Your task to perform on an android device: check data usage Image 0: 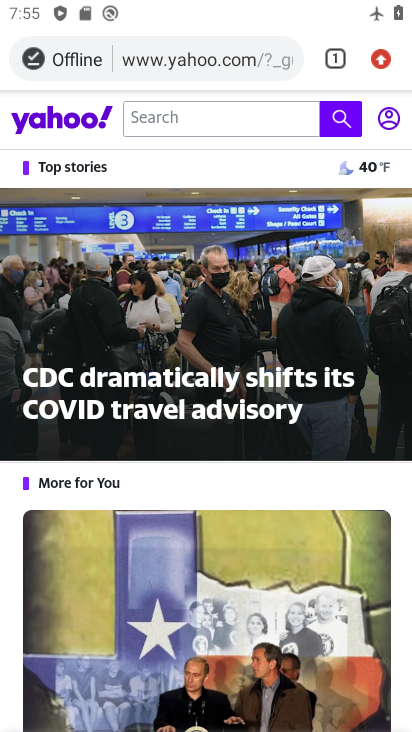
Step 0: press home button
Your task to perform on an android device: check data usage Image 1: 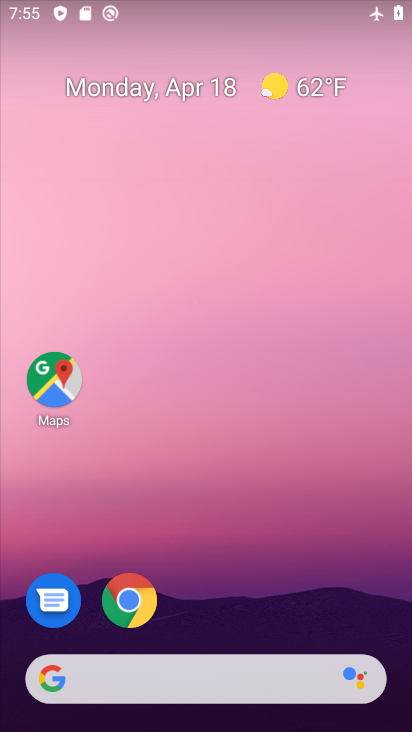
Step 1: drag from (232, 637) to (142, 0)
Your task to perform on an android device: check data usage Image 2: 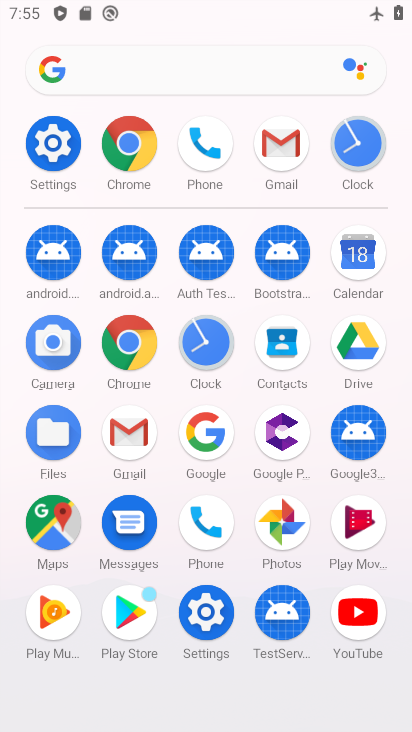
Step 2: click (32, 149)
Your task to perform on an android device: check data usage Image 3: 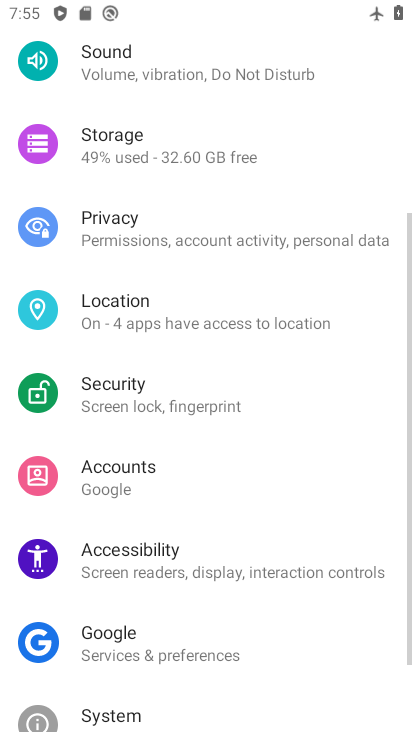
Step 3: drag from (152, 158) to (210, 512)
Your task to perform on an android device: check data usage Image 4: 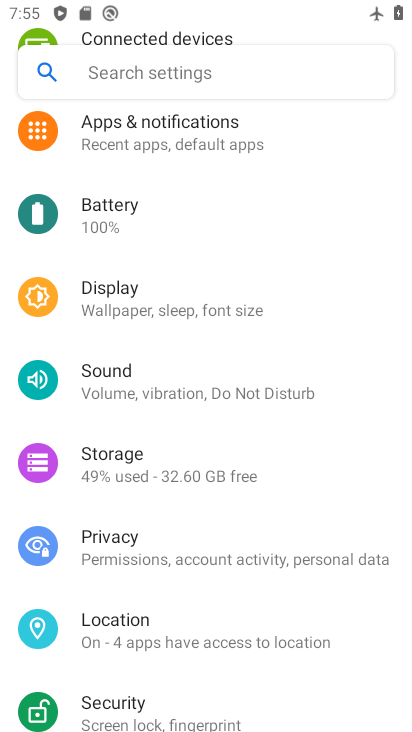
Step 4: drag from (232, 250) to (207, 591)
Your task to perform on an android device: check data usage Image 5: 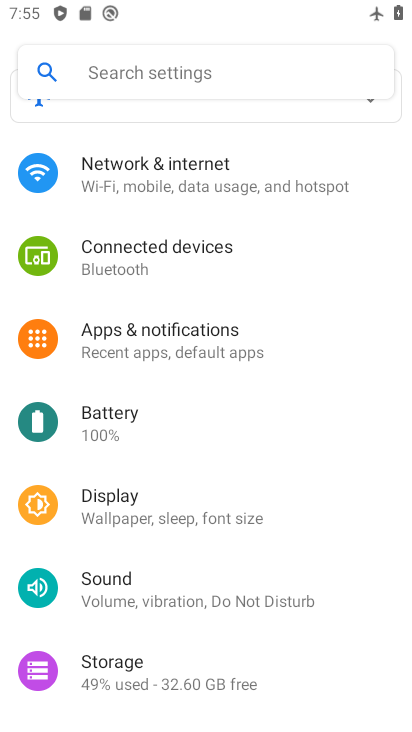
Step 5: click (74, 184)
Your task to perform on an android device: check data usage Image 6: 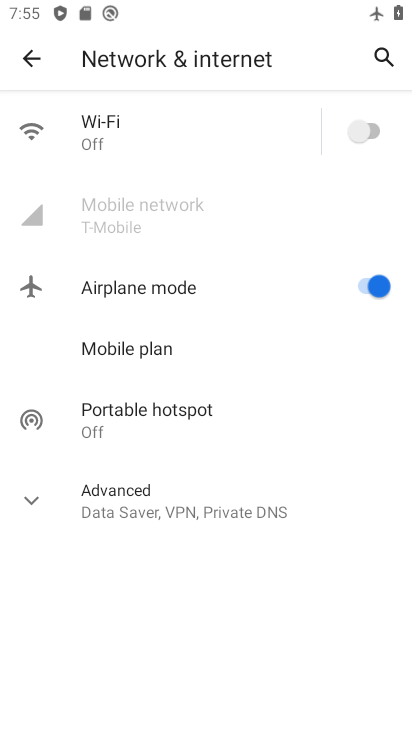
Step 6: click (126, 206)
Your task to perform on an android device: check data usage Image 7: 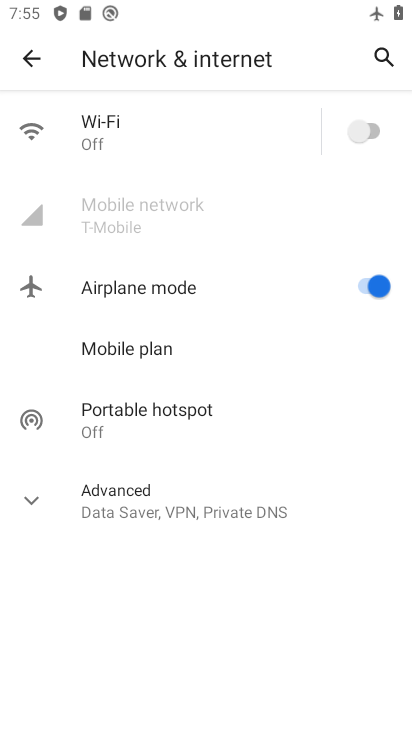
Step 7: click (158, 209)
Your task to perform on an android device: check data usage Image 8: 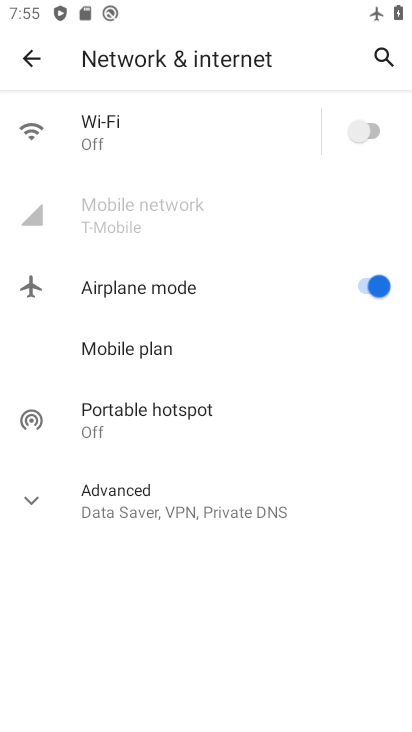
Step 8: task complete